Your task to perform on an android device: turn off improve location accuracy Image 0: 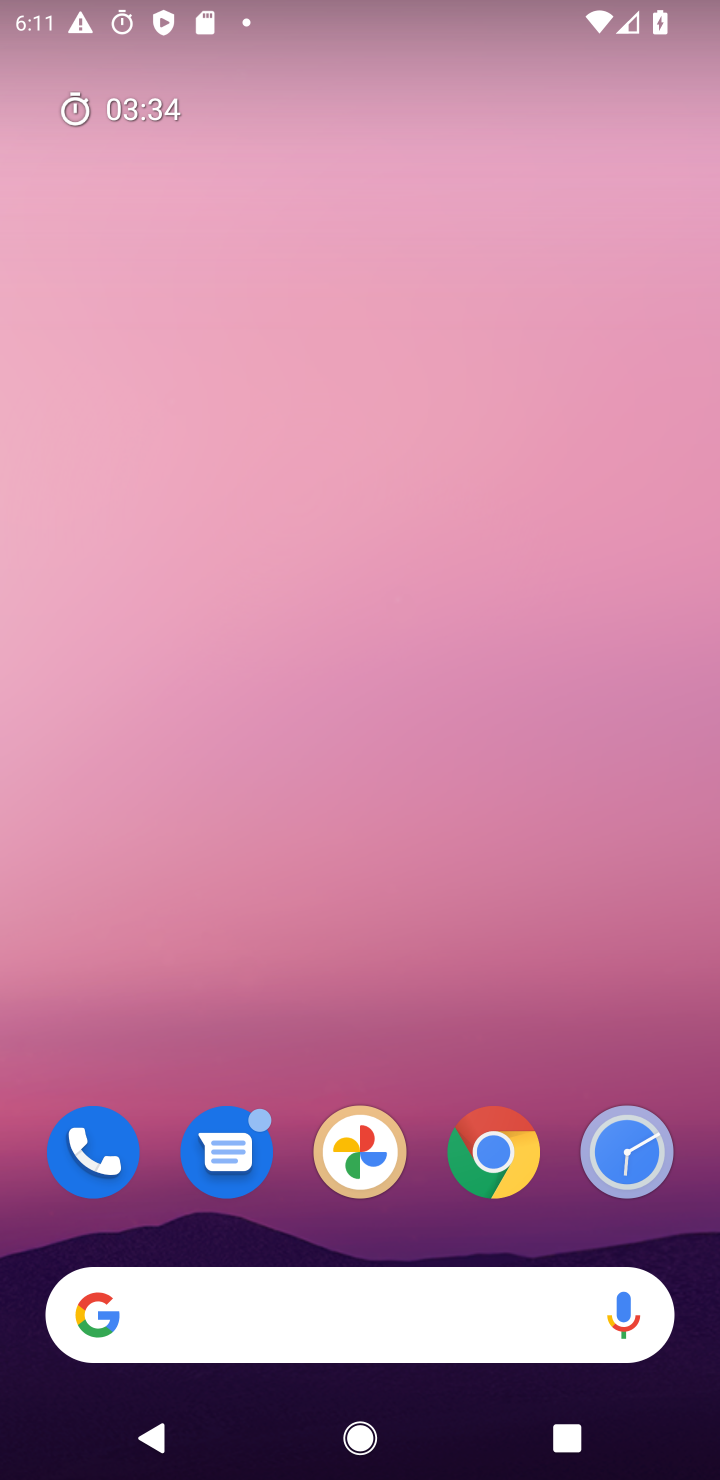
Step 0: drag from (558, 1185) to (660, 164)
Your task to perform on an android device: turn off improve location accuracy Image 1: 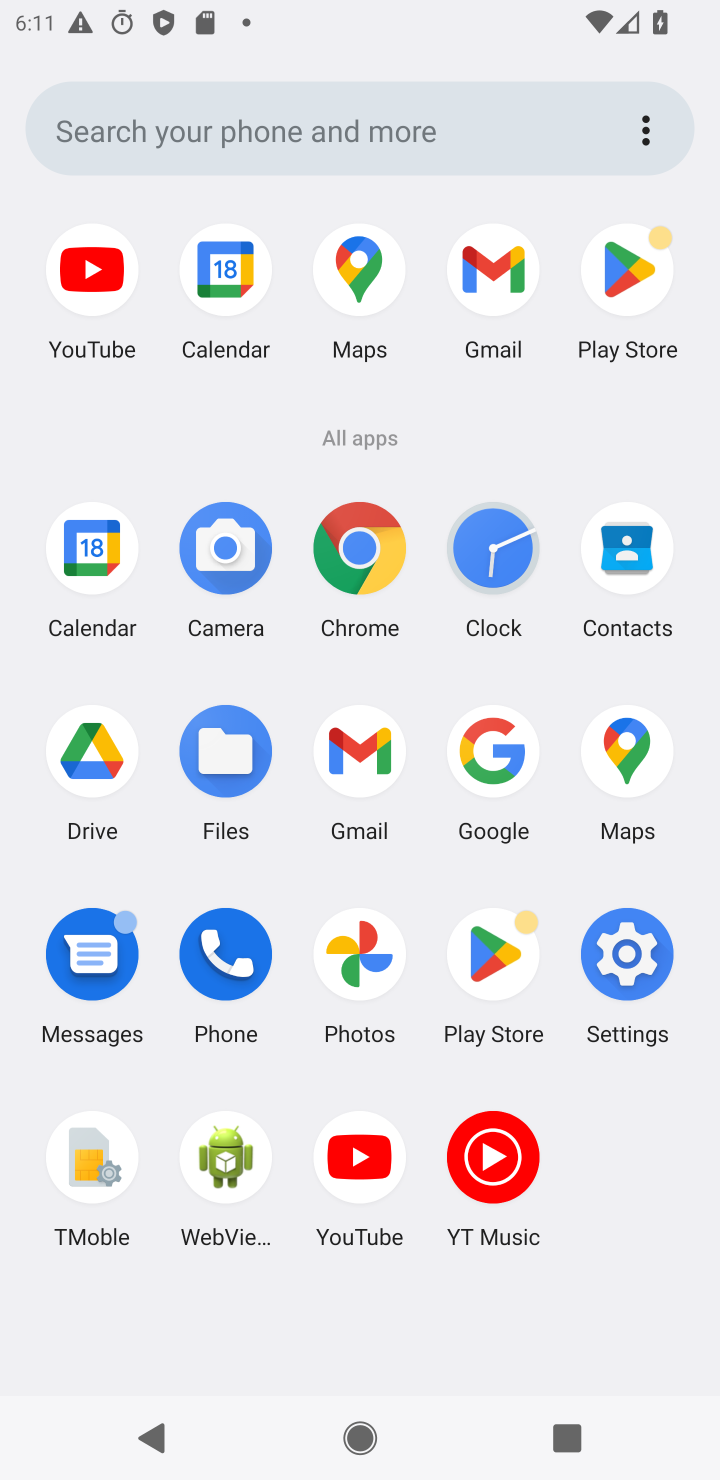
Step 1: click (636, 963)
Your task to perform on an android device: turn off improve location accuracy Image 2: 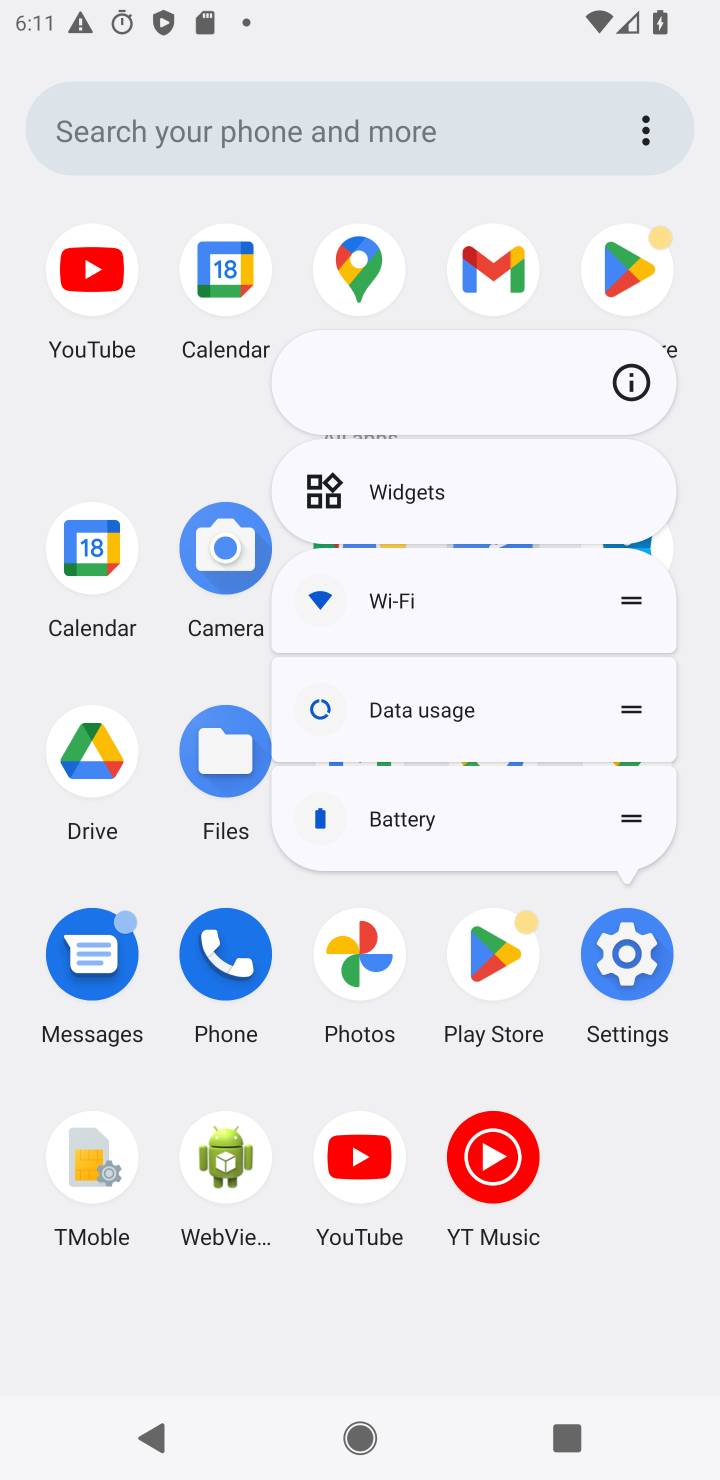
Step 2: click (618, 962)
Your task to perform on an android device: turn off improve location accuracy Image 3: 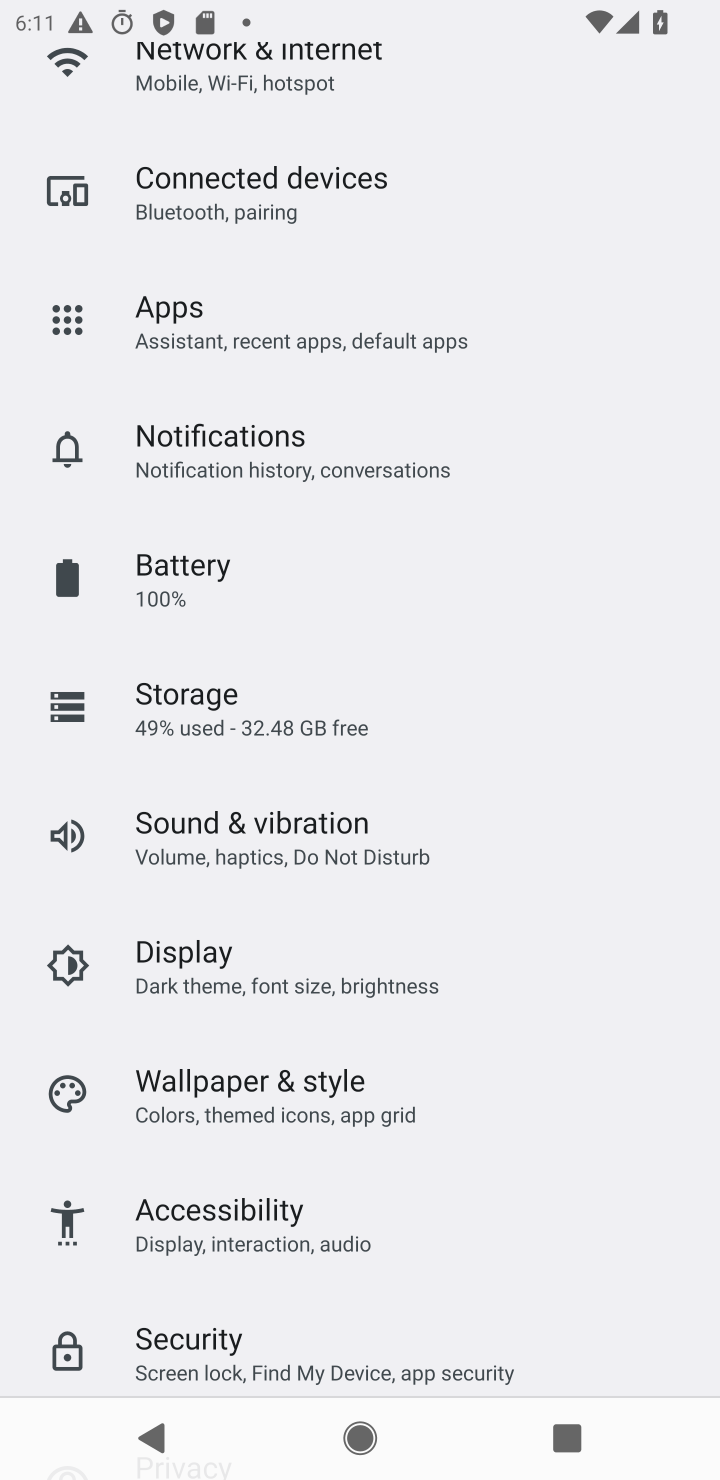
Step 3: drag from (343, 1130) to (499, 340)
Your task to perform on an android device: turn off improve location accuracy Image 4: 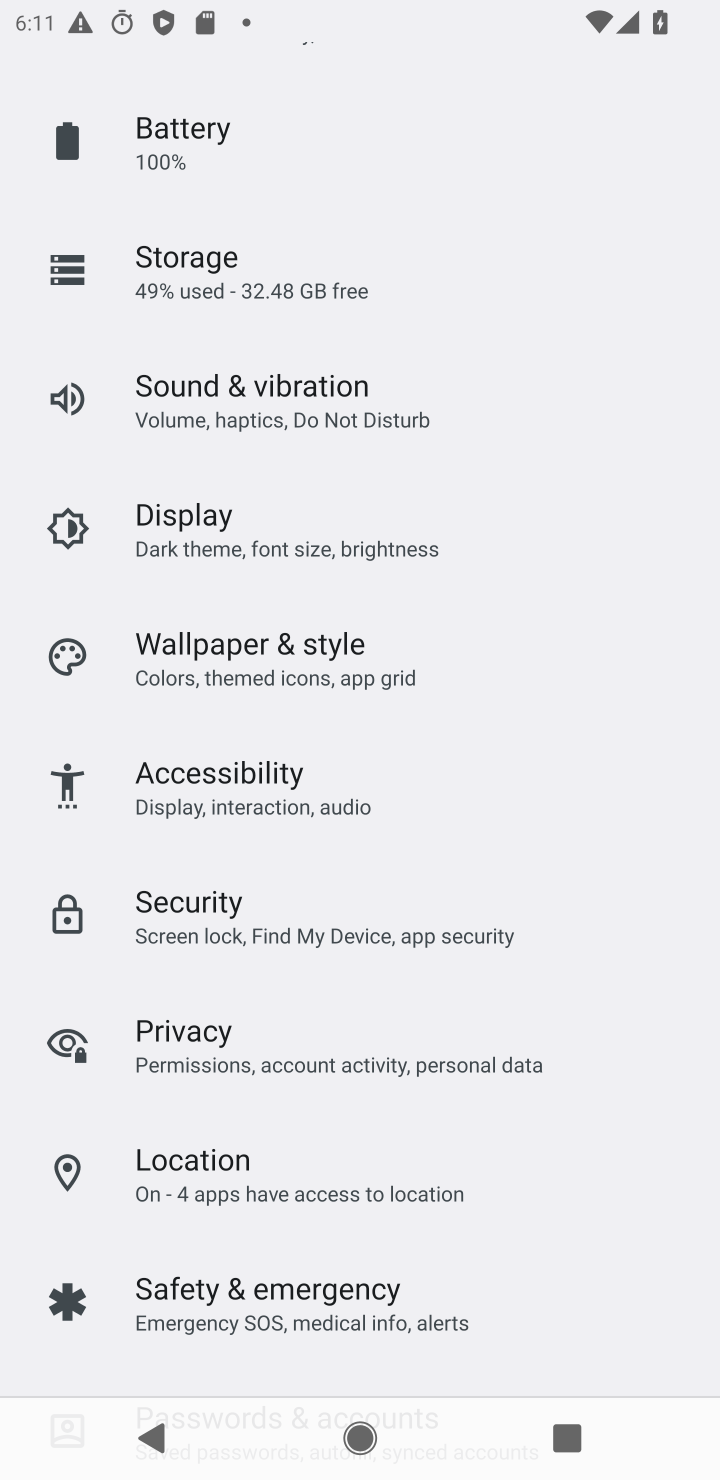
Step 4: click (191, 1165)
Your task to perform on an android device: turn off improve location accuracy Image 5: 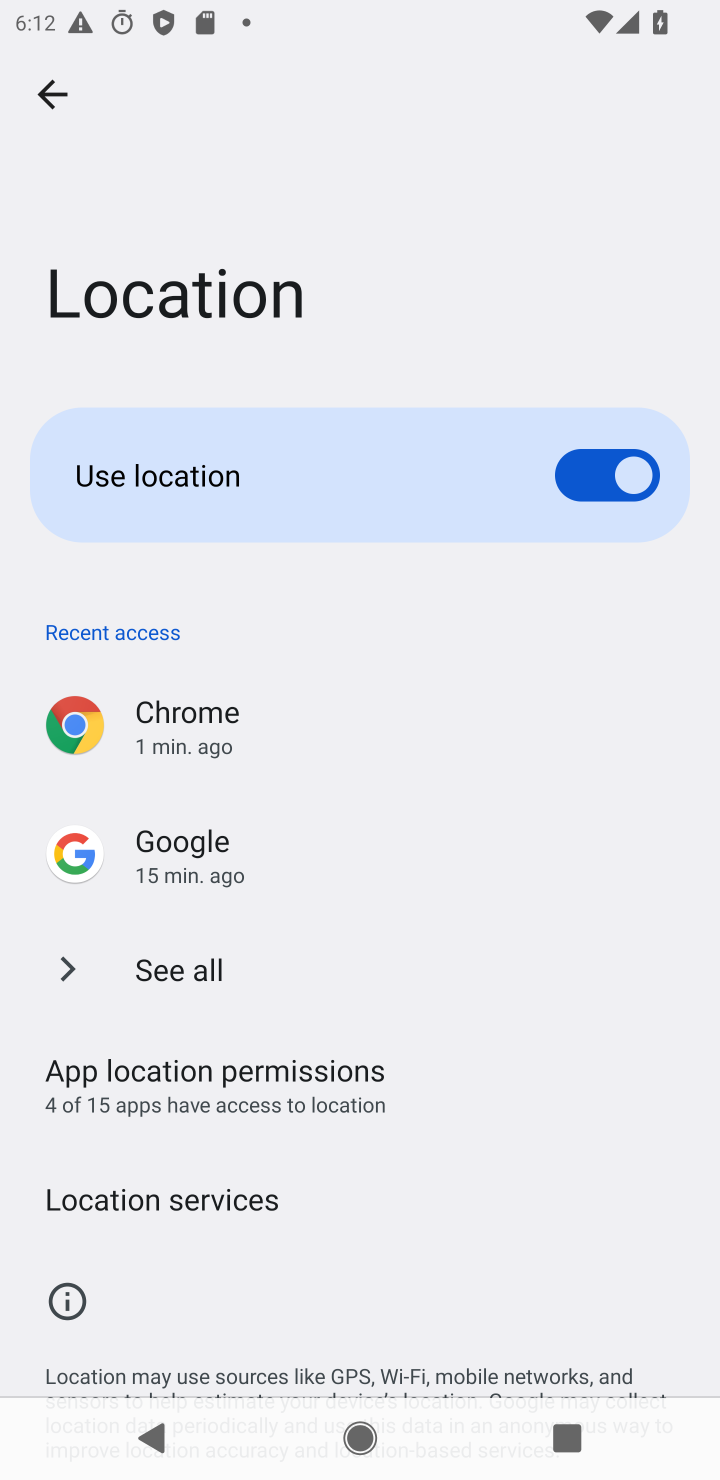
Step 5: drag from (418, 1126) to (594, 199)
Your task to perform on an android device: turn off improve location accuracy Image 6: 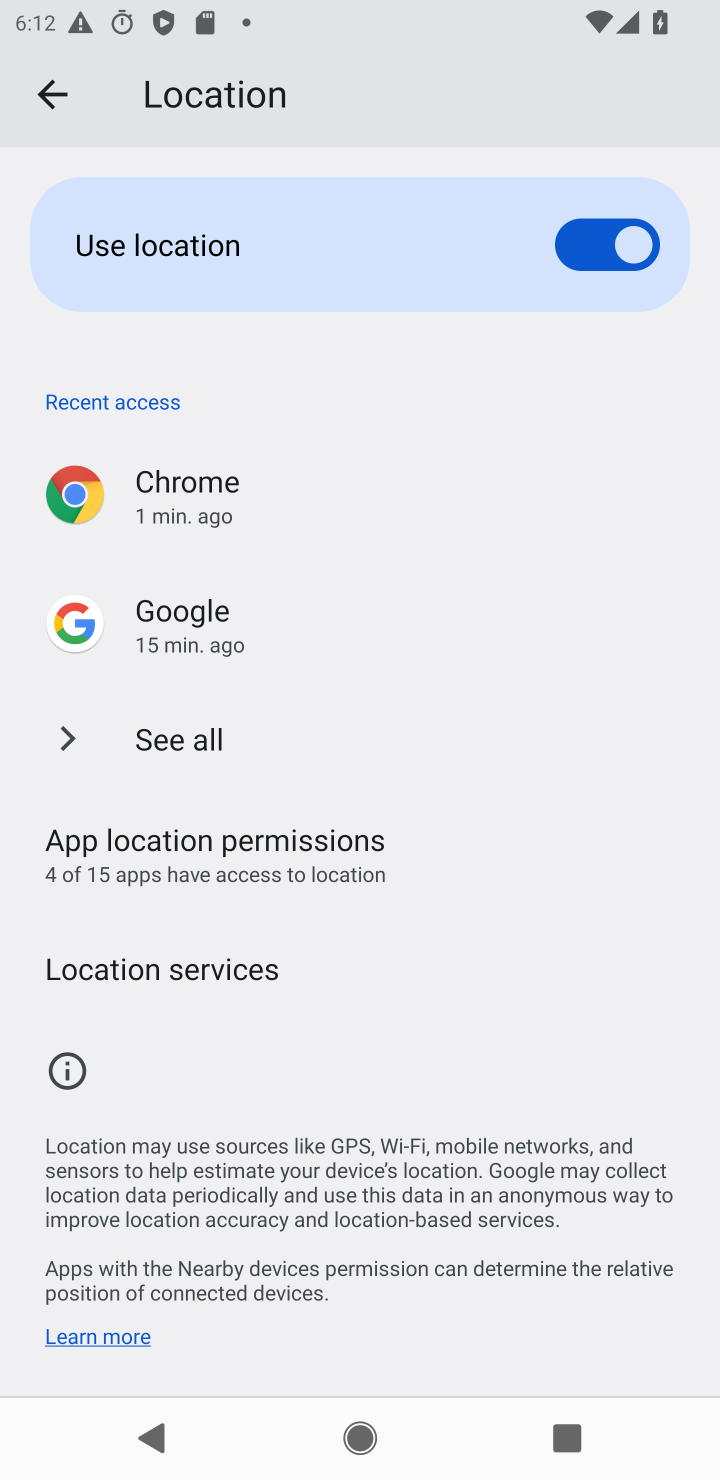
Step 6: click (201, 960)
Your task to perform on an android device: turn off improve location accuracy Image 7: 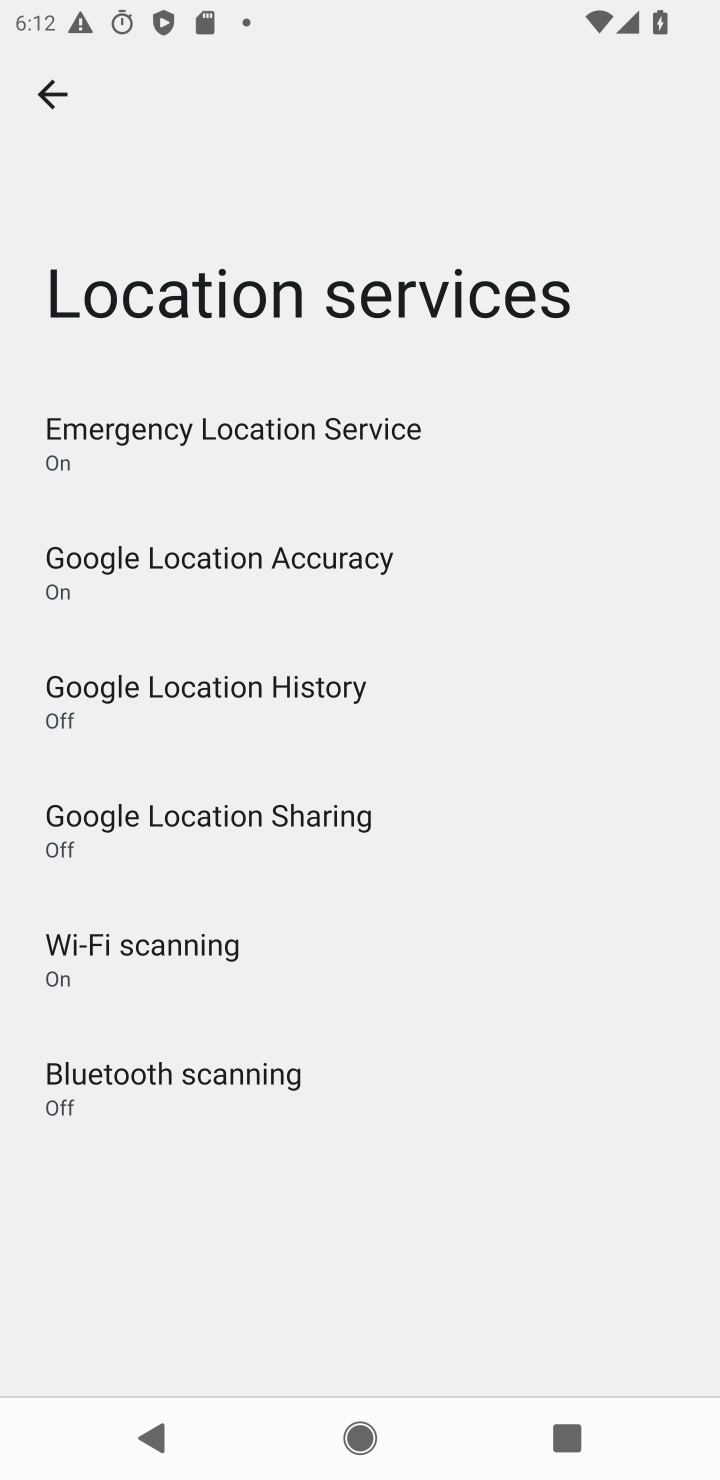
Step 7: click (315, 561)
Your task to perform on an android device: turn off improve location accuracy Image 8: 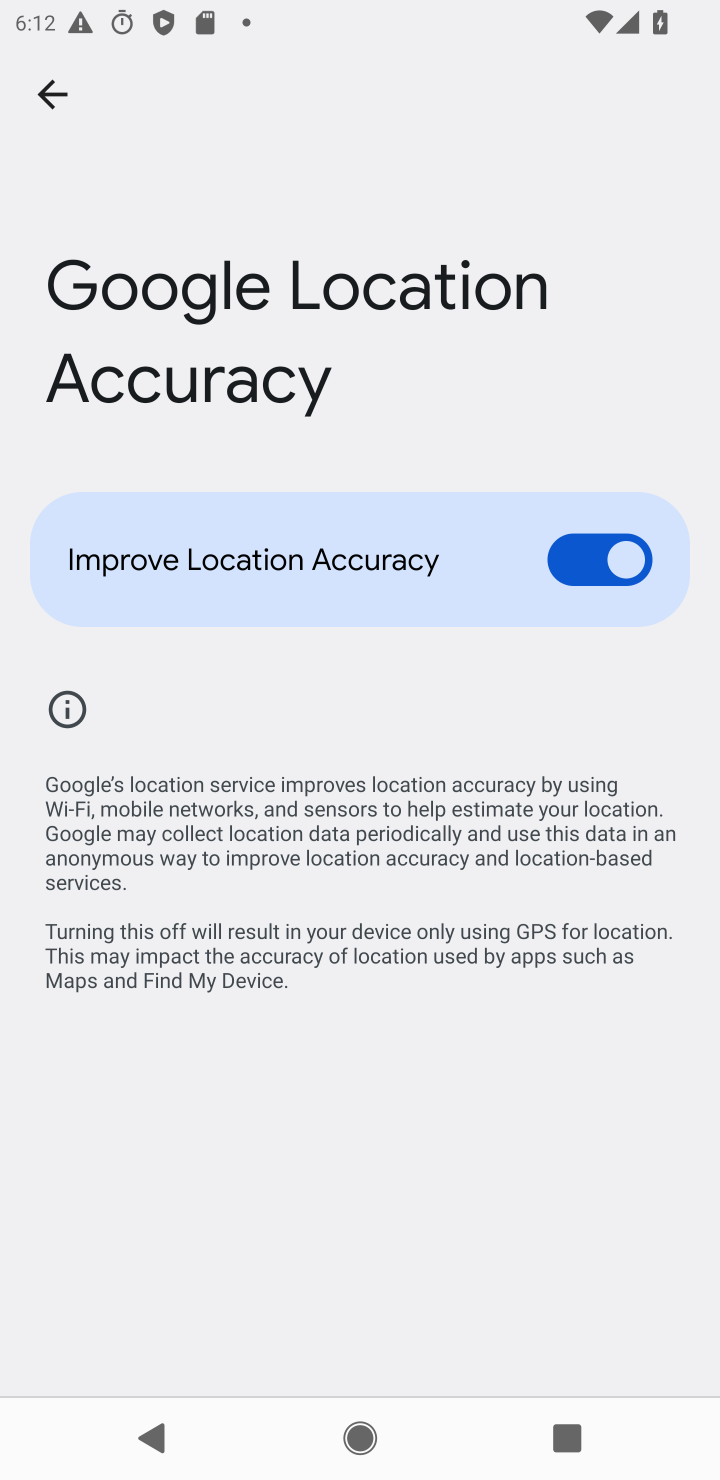
Step 8: click (546, 549)
Your task to perform on an android device: turn off improve location accuracy Image 9: 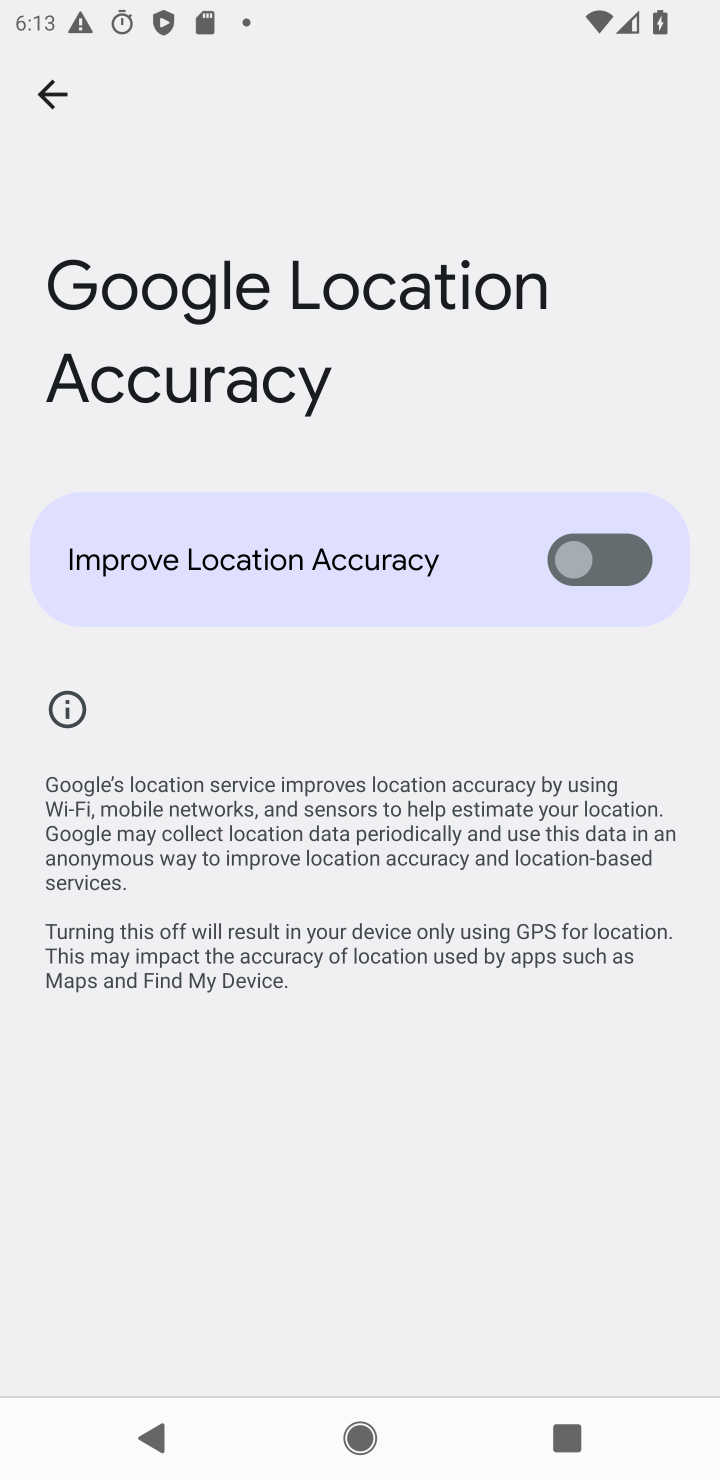
Step 9: task complete